Your task to perform on an android device: toggle notifications settings in the gmail app Image 0: 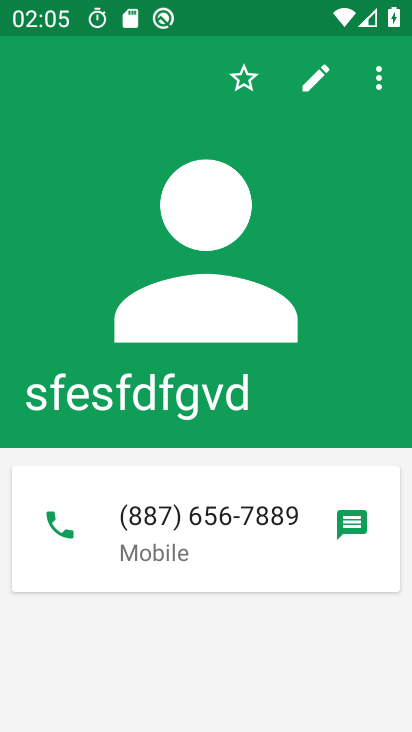
Step 0: press home button
Your task to perform on an android device: toggle notifications settings in the gmail app Image 1: 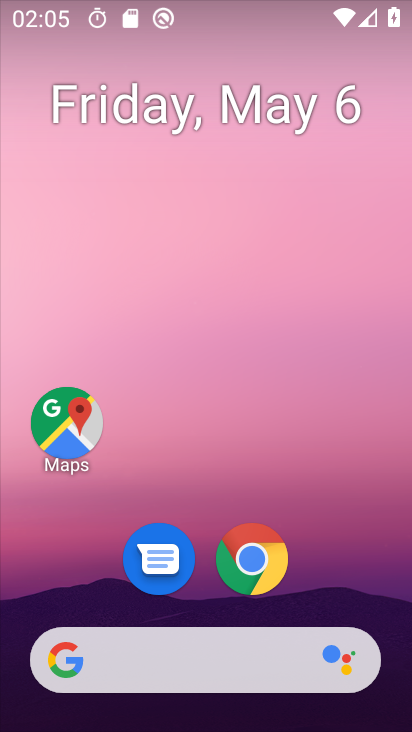
Step 1: drag from (330, 626) to (324, 0)
Your task to perform on an android device: toggle notifications settings in the gmail app Image 2: 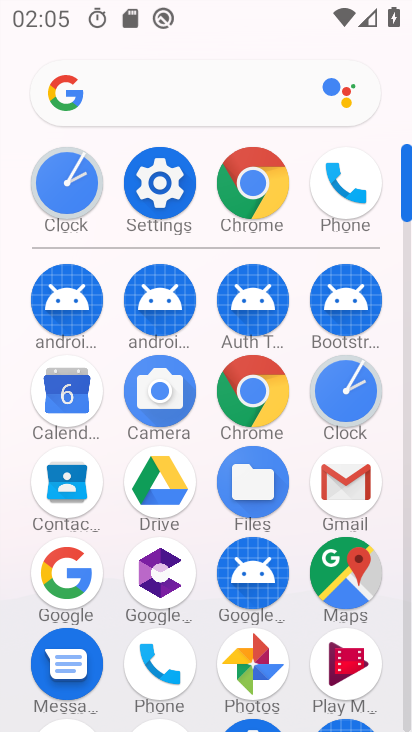
Step 2: click (348, 487)
Your task to perform on an android device: toggle notifications settings in the gmail app Image 3: 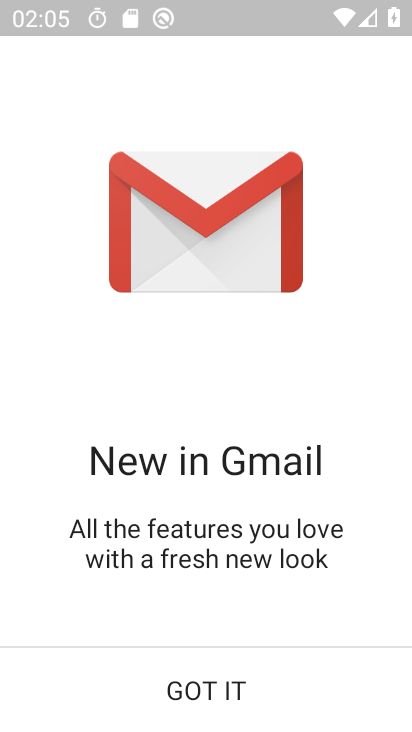
Step 3: click (198, 698)
Your task to perform on an android device: toggle notifications settings in the gmail app Image 4: 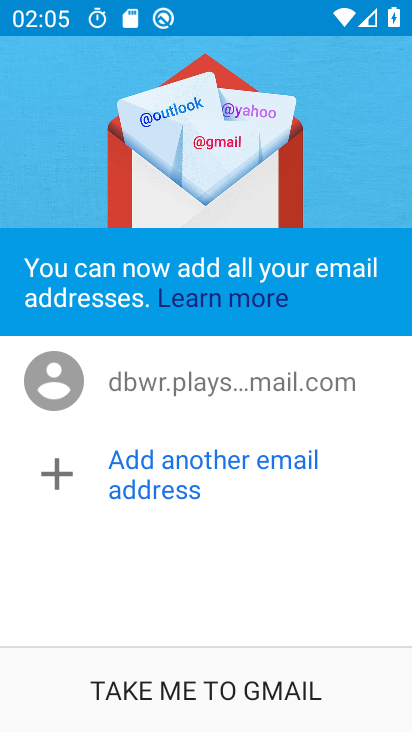
Step 4: click (229, 688)
Your task to perform on an android device: toggle notifications settings in the gmail app Image 5: 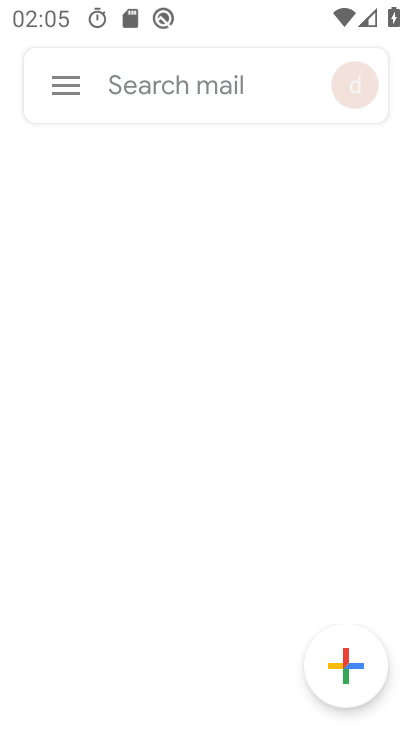
Step 5: click (66, 87)
Your task to perform on an android device: toggle notifications settings in the gmail app Image 6: 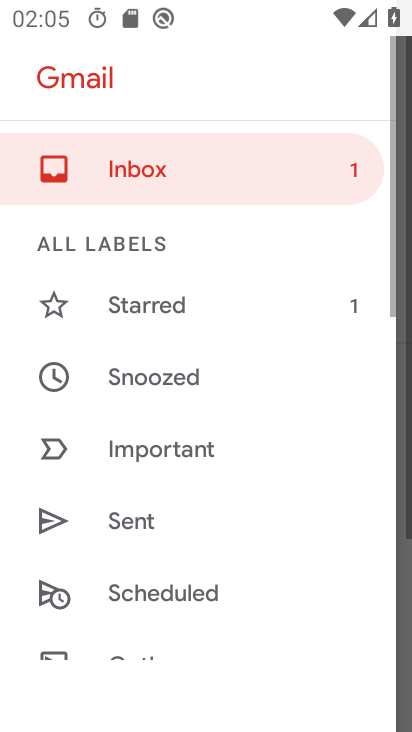
Step 6: drag from (278, 668) to (236, 250)
Your task to perform on an android device: toggle notifications settings in the gmail app Image 7: 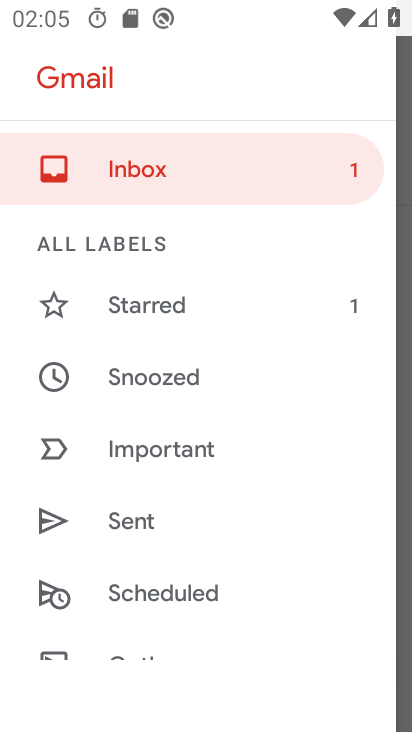
Step 7: drag from (183, 643) to (224, 12)
Your task to perform on an android device: toggle notifications settings in the gmail app Image 8: 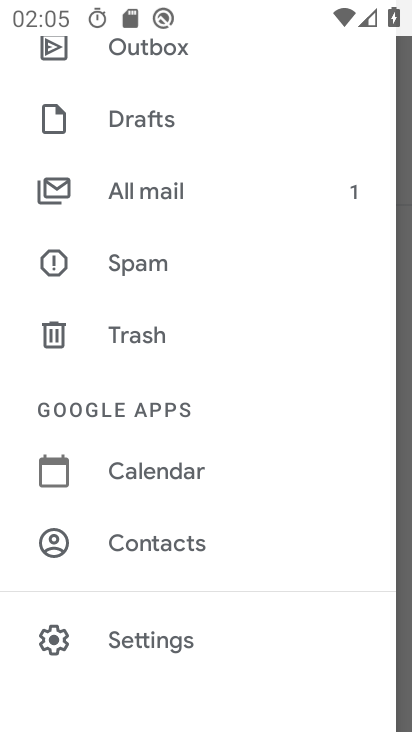
Step 8: click (161, 638)
Your task to perform on an android device: toggle notifications settings in the gmail app Image 9: 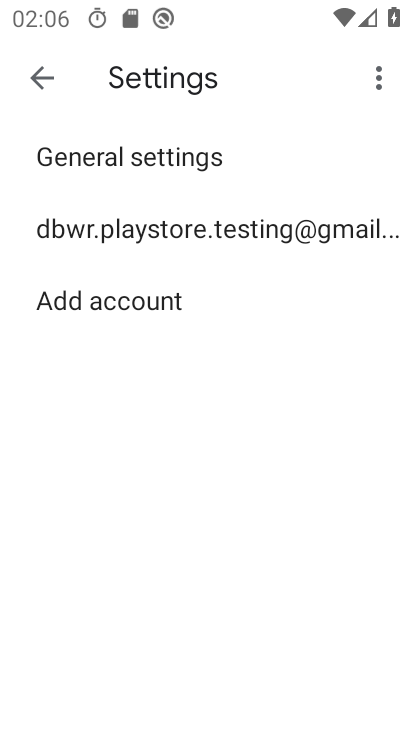
Step 9: click (211, 226)
Your task to perform on an android device: toggle notifications settings in the gmail app Image 10: 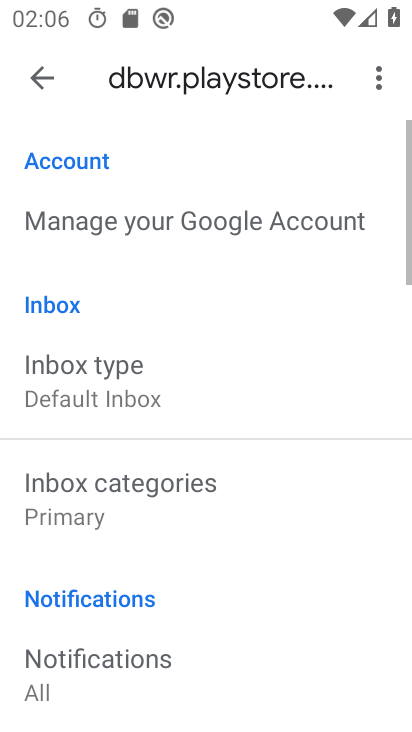
Step 10: drag from (197, 659) to (212, 93)
Your task to perform on an android device: toggle notifications settings in the gmail app Image 11: 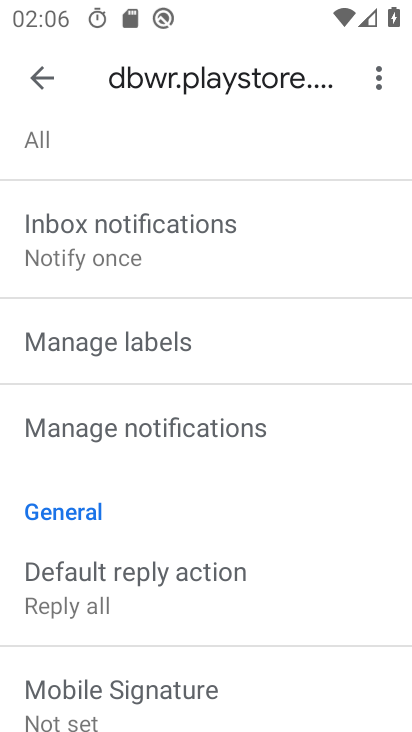
Step 11: click (258, 418)
Your task to perform on an android device: toggle notifications settings in the gmail app Image 12: 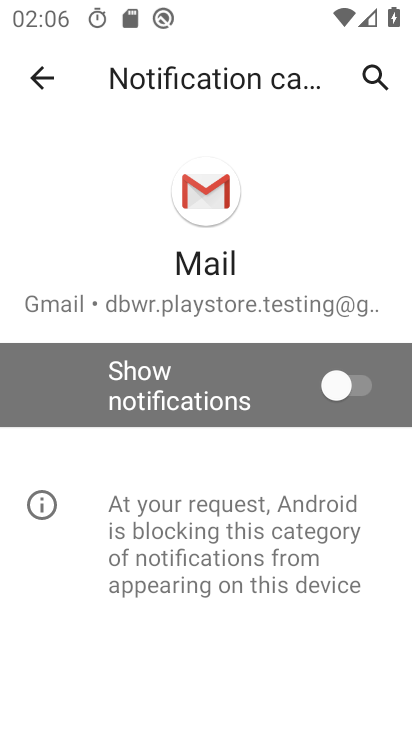
Step 12: click (360, 386)
Your task to perform on an android device: toggle notifications settings in the gmail app Image 13: 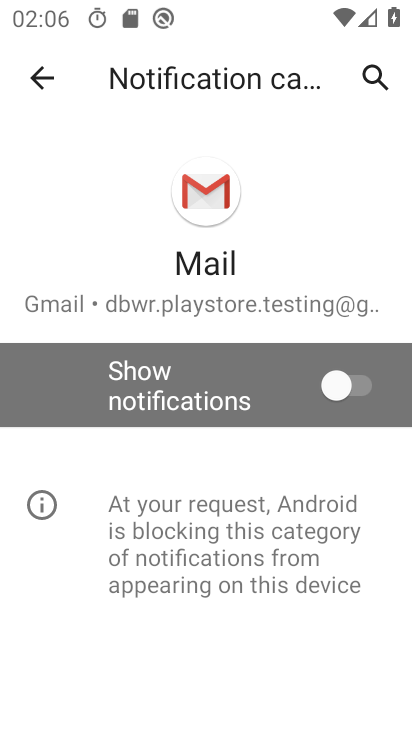
Step 13: click (361, 381)
Your task to perform on an android device: toggle notifications settings in the gmail app Image 14: 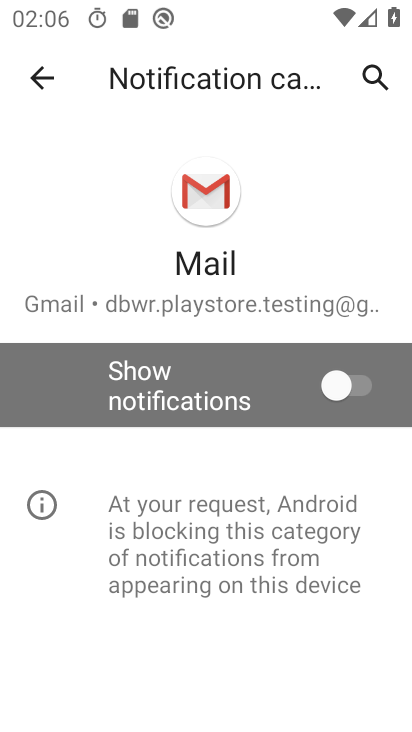
Step 14: click (361, 381)
Your task to perform on an android device: toggle notifications settings in the gmail app Image 15: 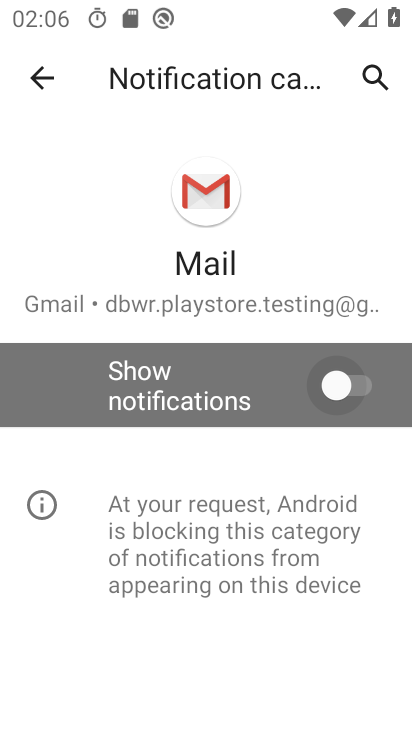
Step 15: click (361, 381)
Your task to perform on an android device: toggle notifications settings in the gmail app Image 16: 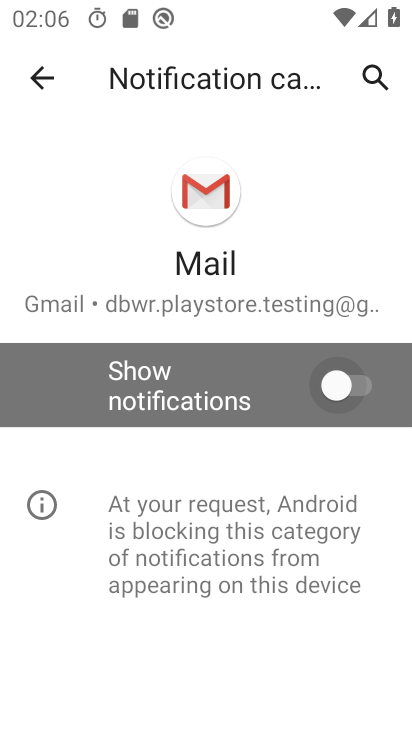
Step 16: click (361, 381)
Your task to perform on an android device: toggle notifications settings in the gmail app Image 17: 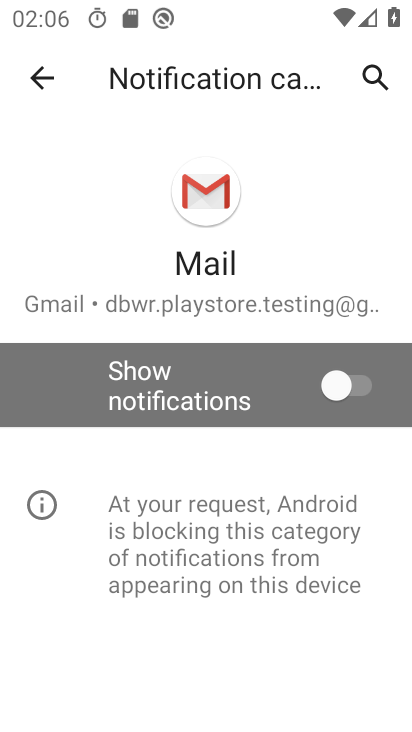
Step 17: click (361, 381)
Your task to perform on an android device: toggle notifications settings in the gmail app Image 18: 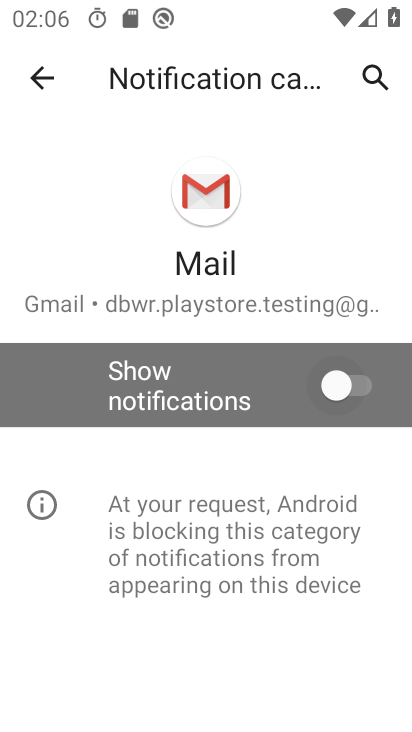
Step 18: click (342, 387)
Your task to perform on an android device: toggle notifications settings in the gmail app Image 19: 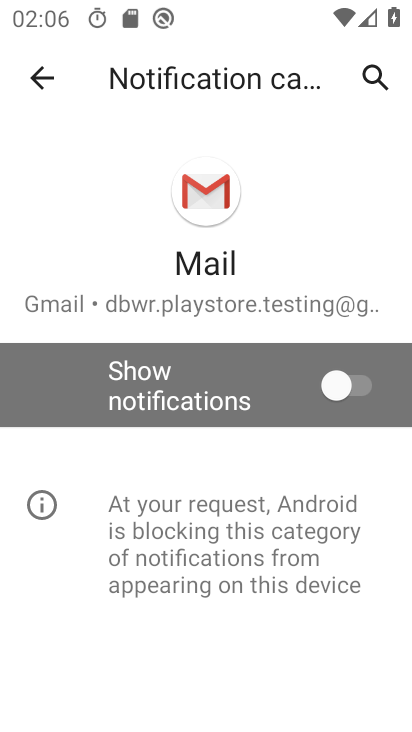
Step 19: click (342, 387)
Your task to perform on an android device: toggle notifications settings in the gmail app Image 20: 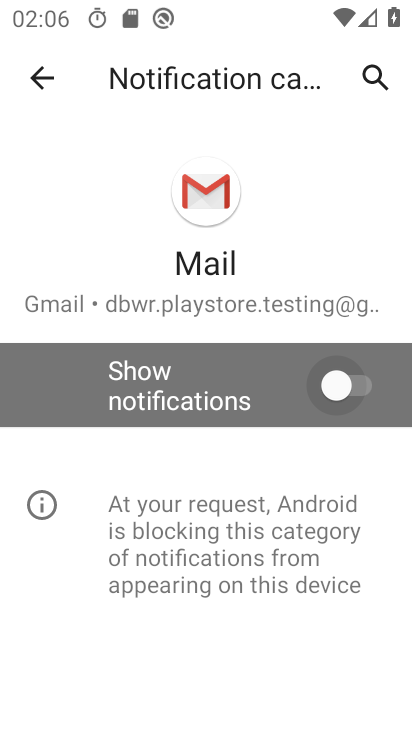
Step 20: click (342, 387)
Your task to perform on an android device: toggle notifications settings in the gmail app Image 21: 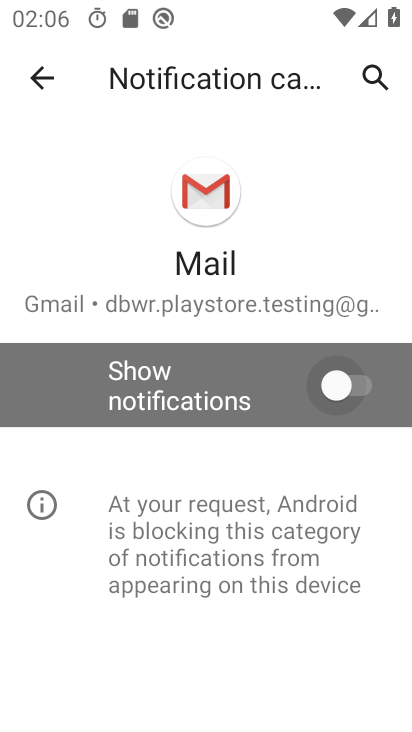
Step 21: click (357, 392)
Your task to perform on an android device: toggle notifications settings in the gmail app Image 22: 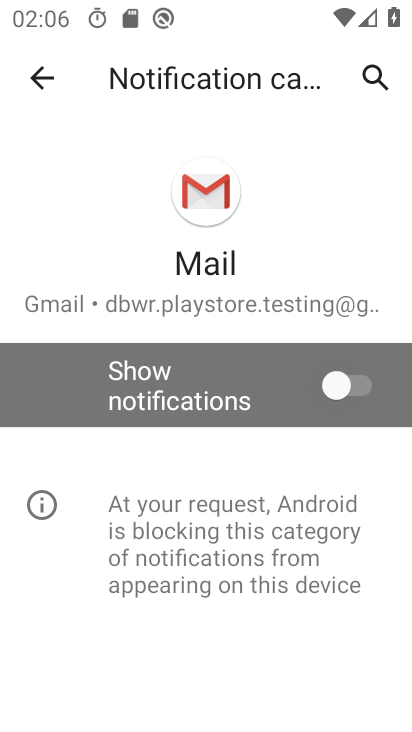
Step 22: click (357, 392)
Your task to perform on an android device: toggle notifications settings in the gmail app Image 23: 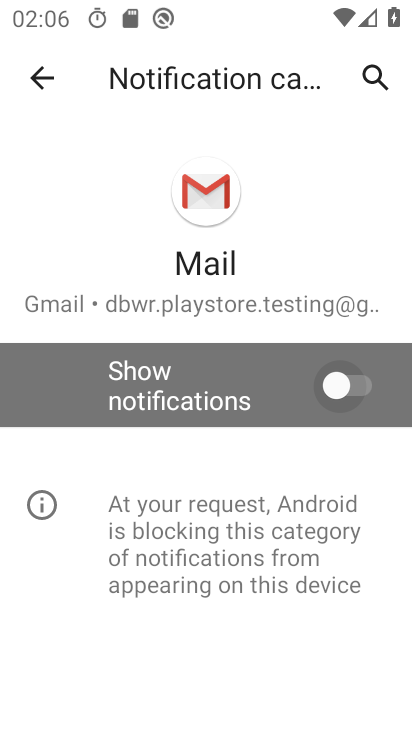
Step 23: click (357, 392)
Your task to perform on an android device: toggle notifications settings in the gmail app Image 24: 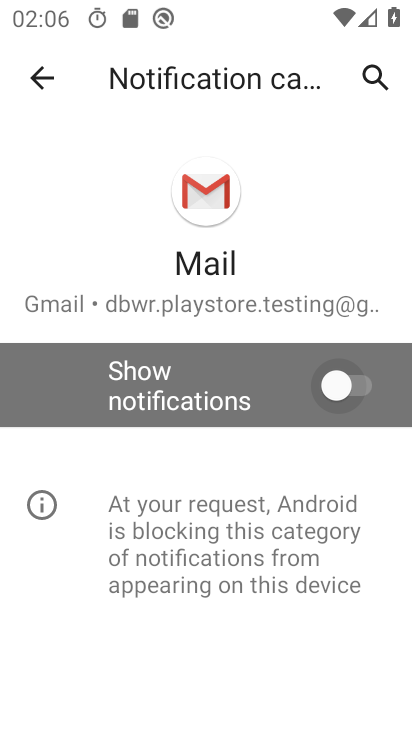
Step 24: click (357, 392)
Your task to perform on an android device: toggle notifications settings in the gmail app Image 25: 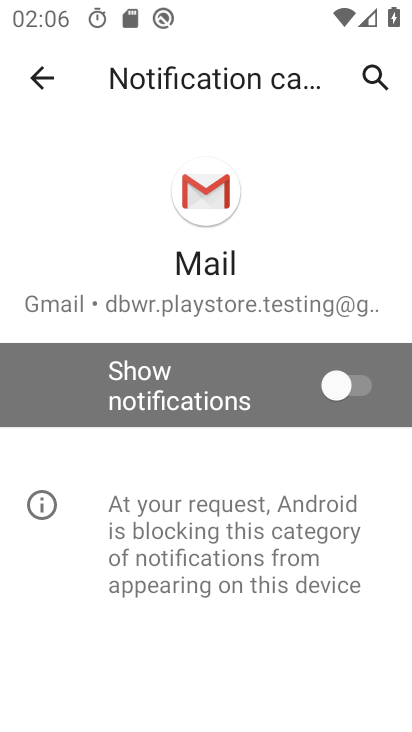
Step 25: click (359, 390)
Your task to perform on an android device: toggle notifications settings in the gmail app Image 26: 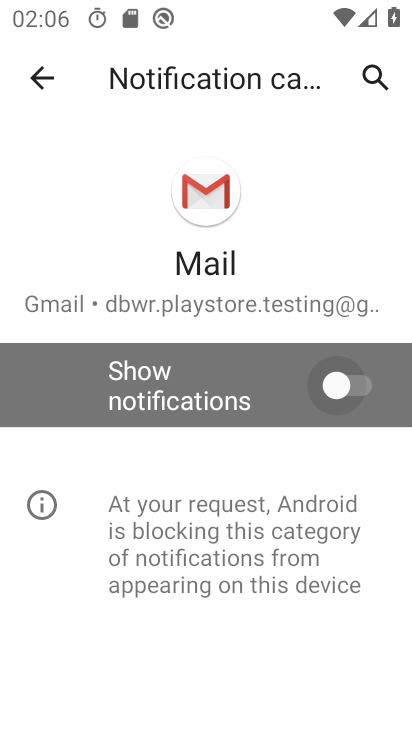
Step 26: click (366, 384)
Your task to perform on an android device: toggle notifications settings in the gmail app Image 27: 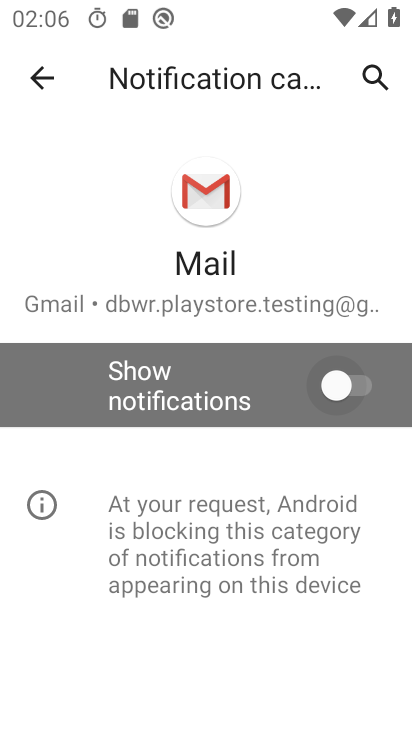
Step 27: click (372, 384)
Your task to perform on an android device: toggle notifications settings in the gmail app Image 28: 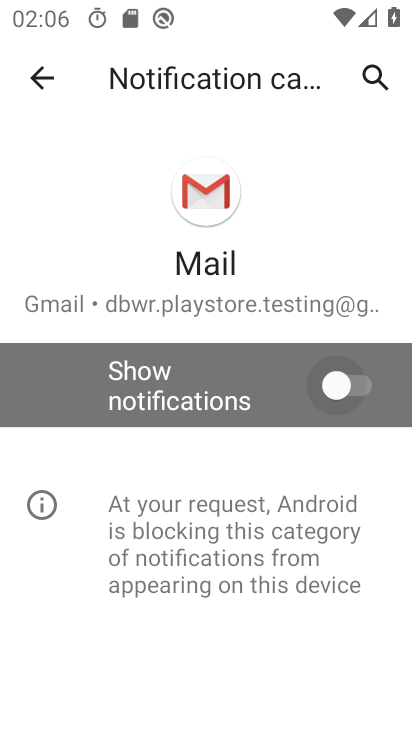
Step 28: click (371, 380)
Your task to perform on an android device: toggle notifications settings in the gmail app Image 29: 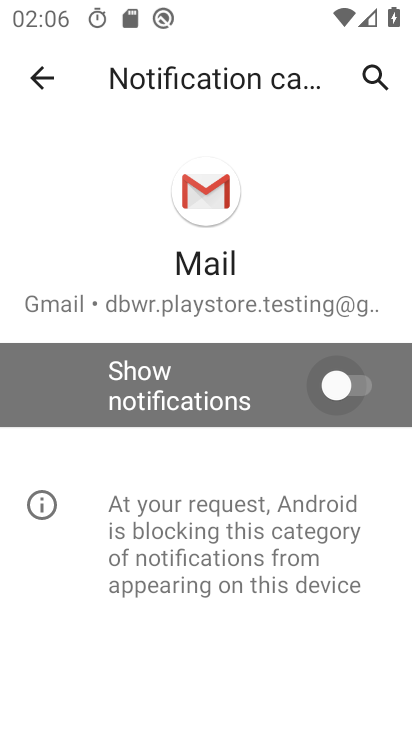
Step 29: click (367, 363)
Your task to perform on an android device: toggle notifications settings in the gmail app Image 30: 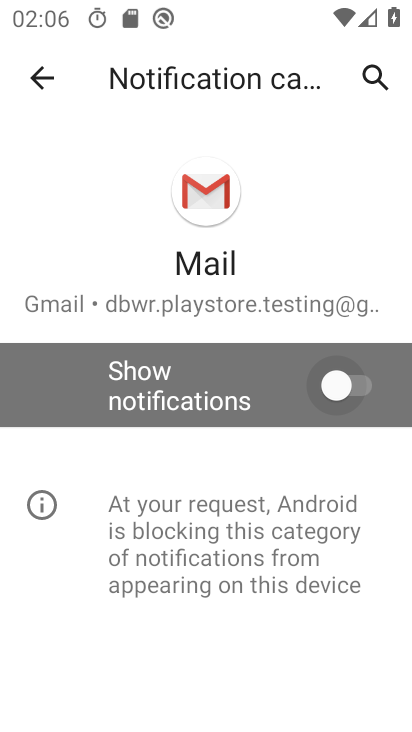
Step 30: click (369, 363)
Your task to perform on an android device: toggle notifications settings in the gmail app Image 31: 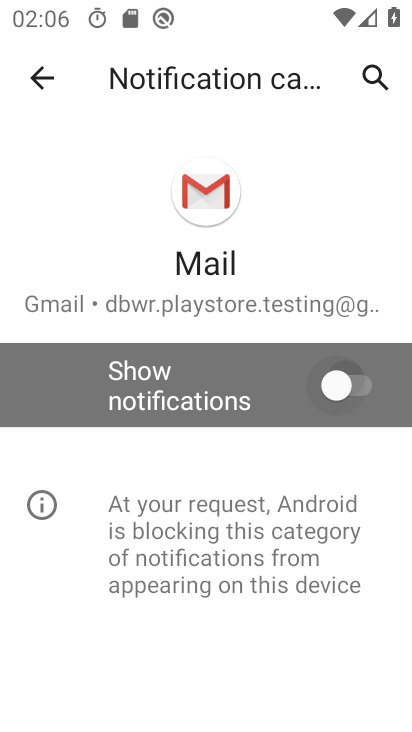
Step 31: click (373, 364)
Your task to perform on an android device: toggle notifications settings in the gmail app Image 32: 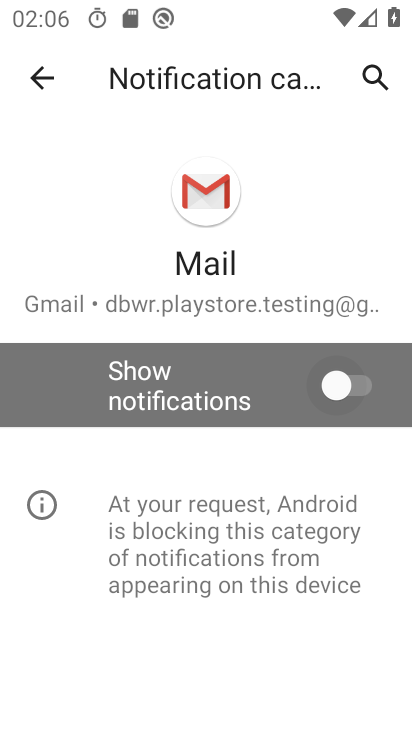
Step 32: click (379, 369)
Your task to perform on an android device: toggle notifications settings in the gmail app Image 33: 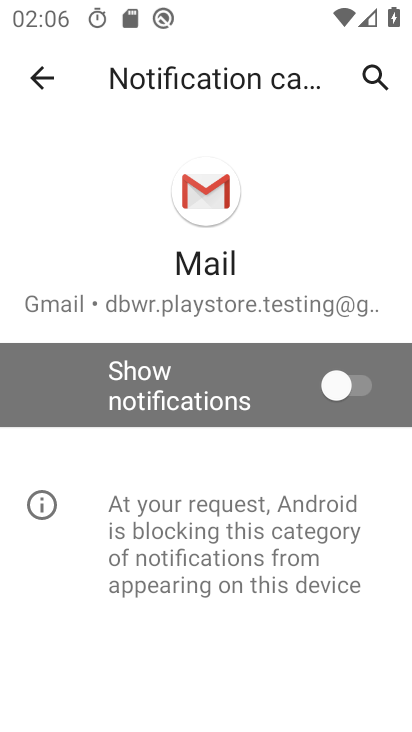
Step 33: task complete